Your task to perform on an android device: Search for seafood restaurants on Google Maps Image 0: 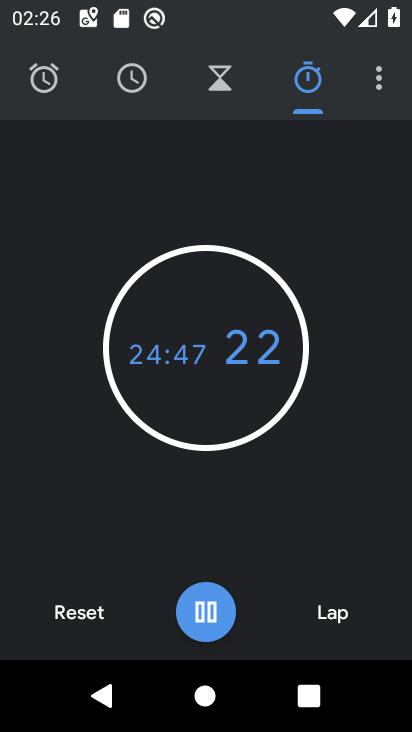
Step 0: drag from (281, 477) to (354, 298)
Your task to perform on an android device: Search for seafood restaurants on Google Maps Image 1: 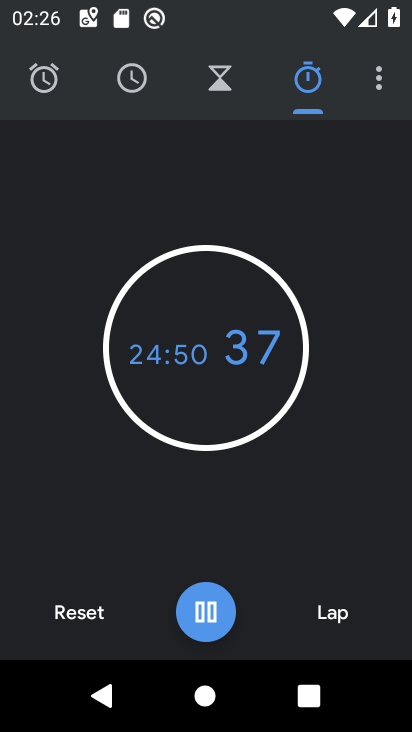
Step 1: click (65, 624)
Your task to perform on an android device: Search for seafood restaurants on Google Maps Image 2: 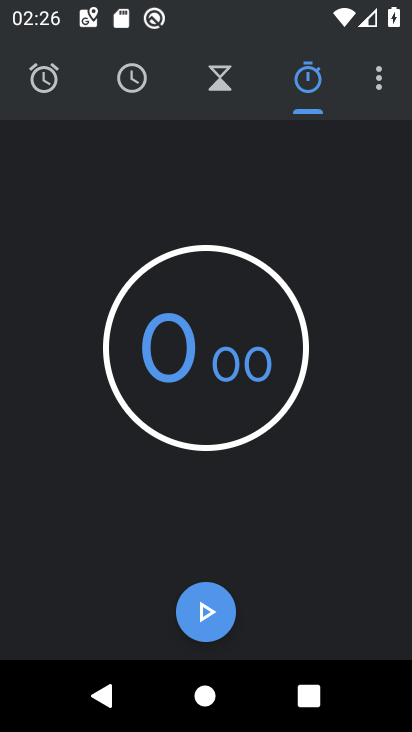
Step 2: click (397, 446)
Your task to perform on an android device: Search for seafood restaurants on Google Maps Image 3: 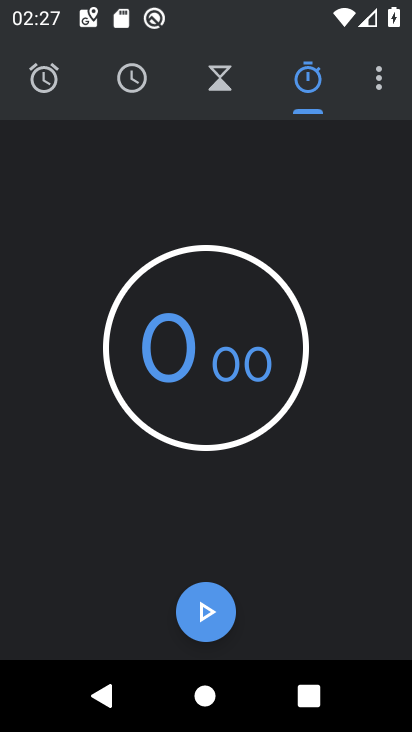
Step 3: press home button
Your task to perform on an android device: Search for seafood restaurants on Google Maps Image 4: 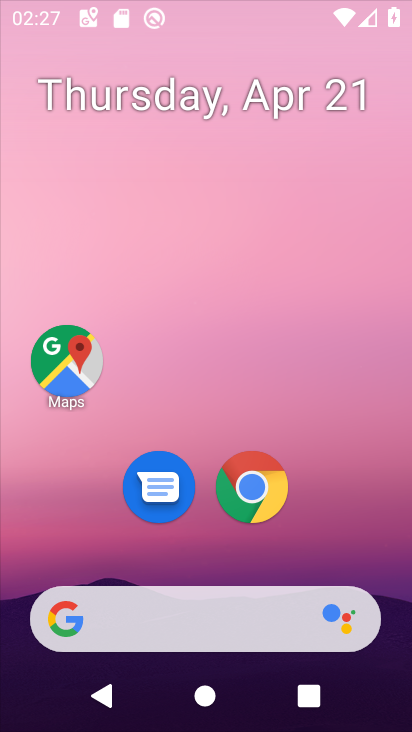
Step 4: drag from (191, 426) to (273, 69)
Your task to perform on an android device: Search for seafood restaurants on Google Maps Image 5: 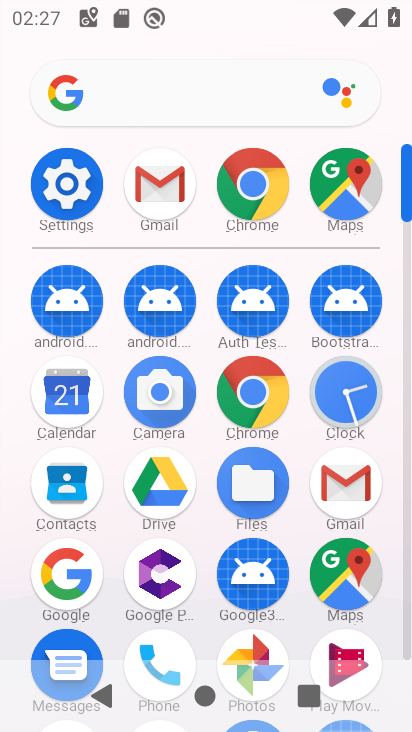
Step 5: click (350, 570)
Your task to perform on an android device: Search for seafood restaurants on Google Maps Image 6: 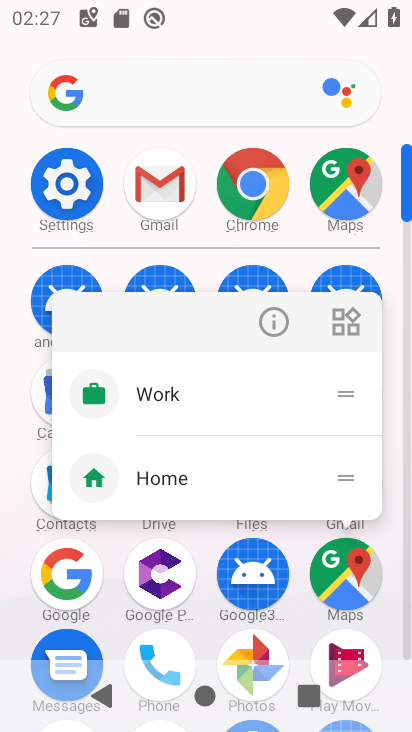
Step 6: click (280, 317)
Your task to perform on an android device: Search for seafood restaurants on Google Maps Image 7: 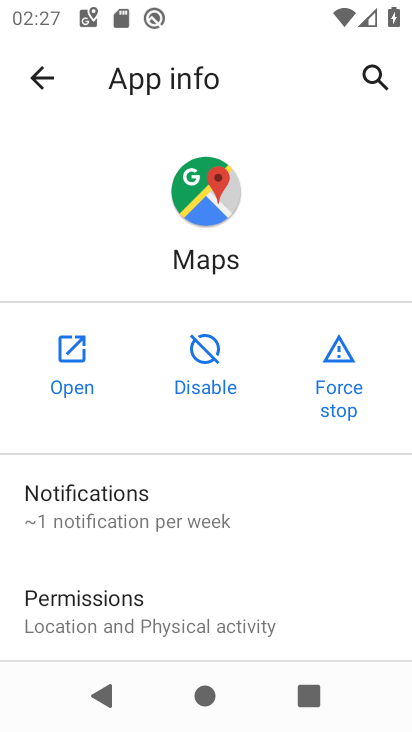
Step 7: click (83, 363)
Your task to perform on an android device: Search for seafood restaurants on Google Maps Image 8: 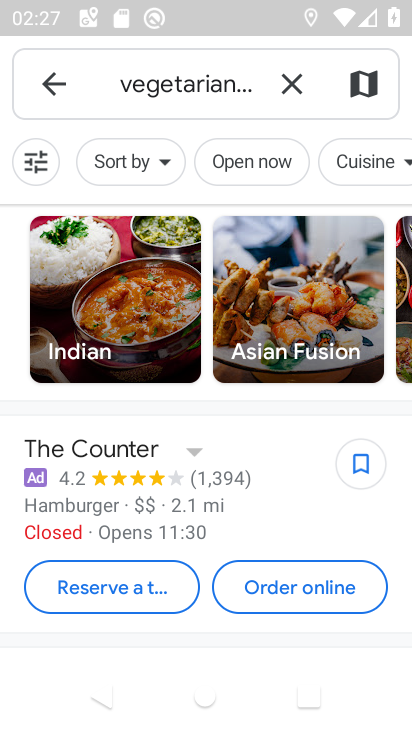
Step 8: drag from (229, 481) to (258, 69)
Your task to perform on an android device: Search for seafood restaurants on Google Maps Image 9: 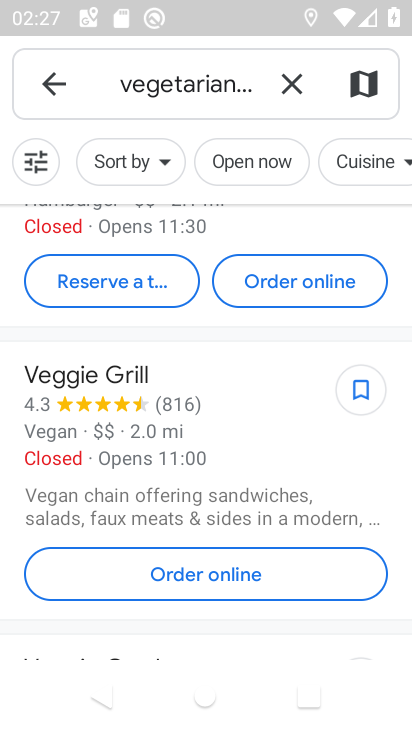
Step 9: drag from (263, 448) to (218, 211)
Your task to perform on an android device: Search for seafood restaurants on Google Maps Image 10: 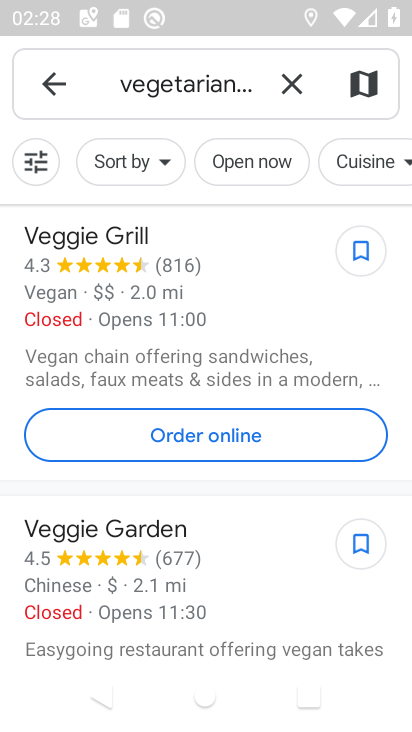
Step 10: click (289, 86)
Your task to perform on an android device: Search for seafood restaurants on Google Maps Image 11: 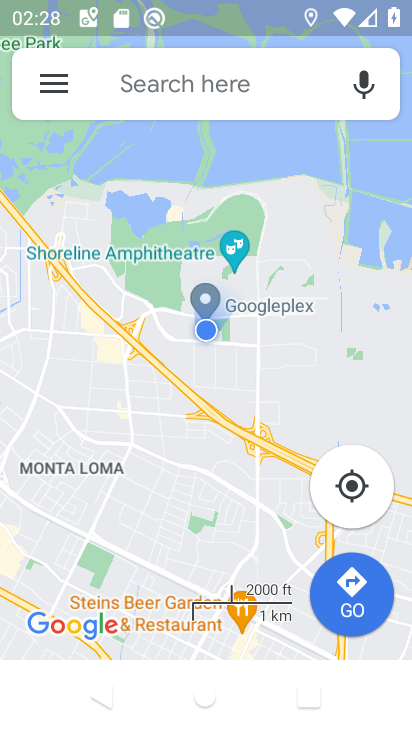
Step 11: click (221, 91)
Your task to perform on an android device: Search for seafood restaurants on Google Maps Image 12: 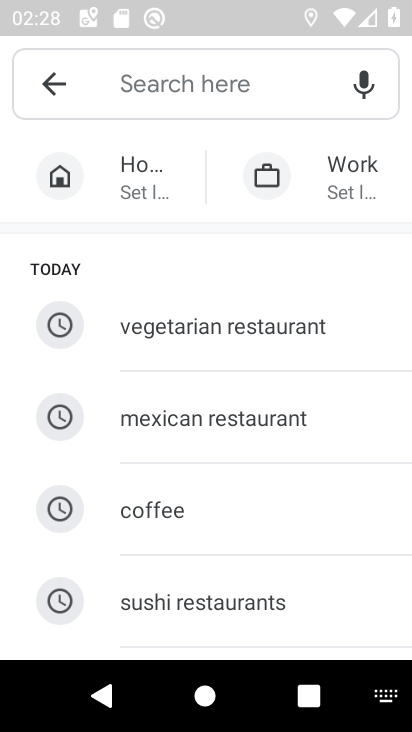
Step 12: drag from (238, 571) to (216, 108)
Your task to perform on an android device: Search for seafood restaurants on Google Maps Image 13: 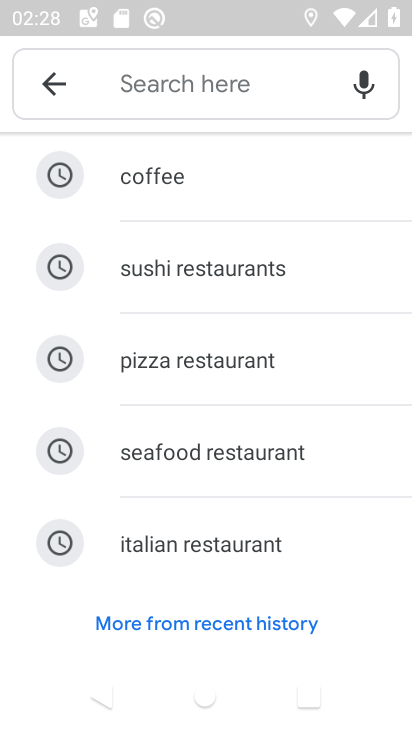
Step 13: click (215, 453)
Your task to perform on an android device: Search for seafood restaurants on Google Maps Image 14: 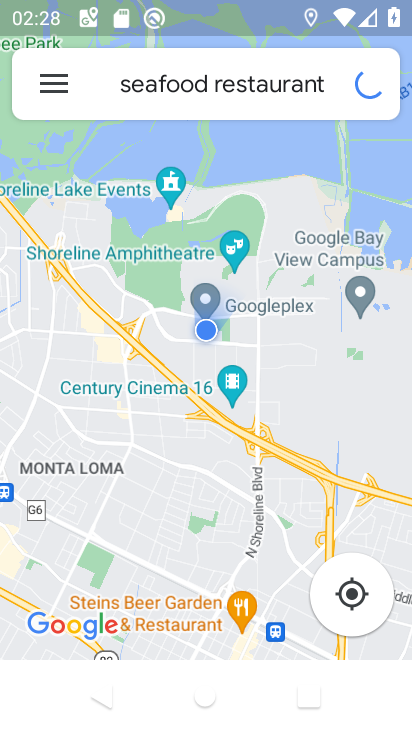
Step 14: drag from (265, 556) to (222, 270)
Your task to perform on an android device: Search for seafood restaurants on Google Maps Image 15: 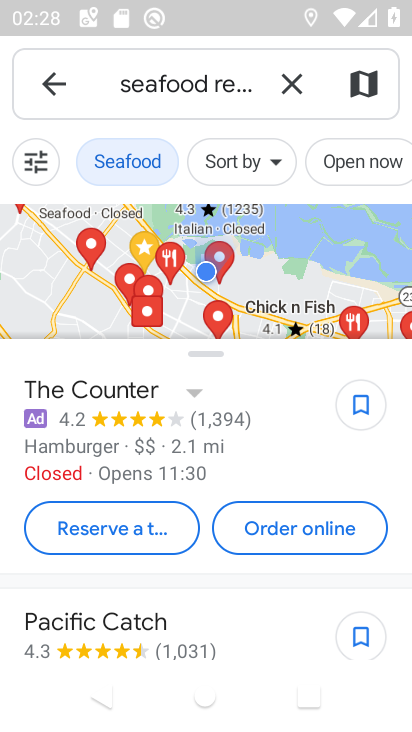
Step 15: drag from (221, 545) to (268, 359)
Your task to perform on an android device: Search for seafood restaurants on Google Maps Image 16: 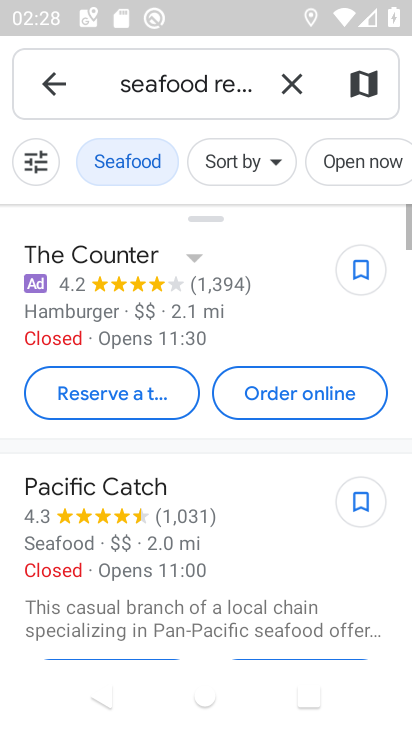
Step 16: drag from (251, 554) to (251, 259)
Your task to perform on an android device: Search for seafood restaurants on Google Maps Image 17: 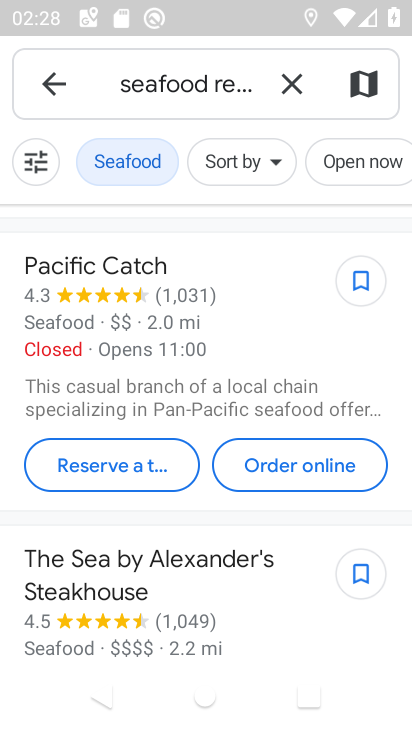
Step 17: drag from (245, 535) to (295, 200)
Your task to perform on an android device: Search for seafood restaurants on Google Maps Image 18: 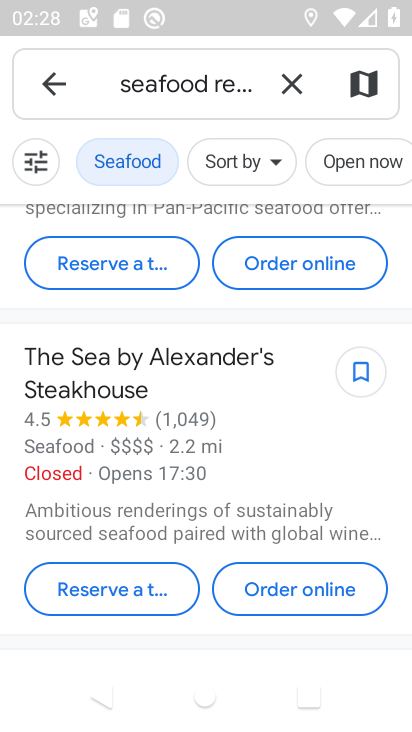
Step 18: click (314, 215)
Your task to perform on an android device: Search for seafood restaurants on Google Maps Image 19: 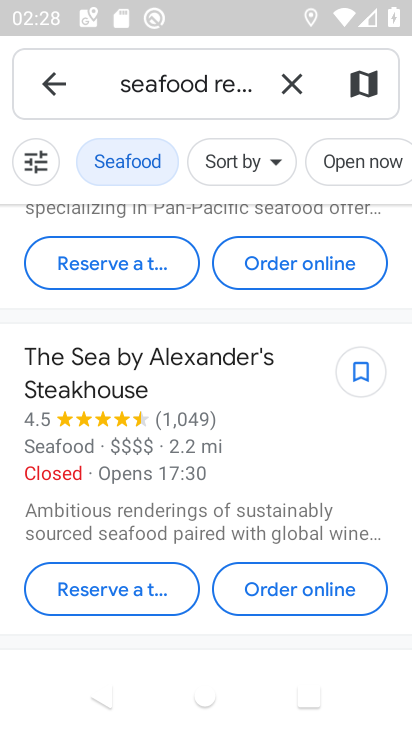
Step 19: task complete